Your task to perform on an android device: add a contact in the contacts app Image 0: 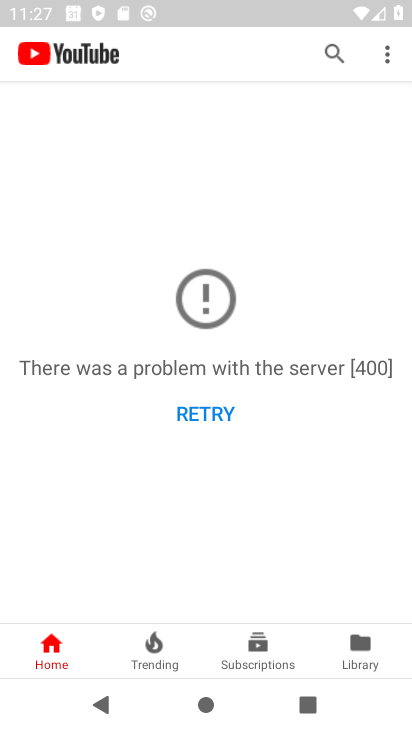
Step 0: press home button
Your task to perform on an android device: add a contact in the contacts app Image 1: 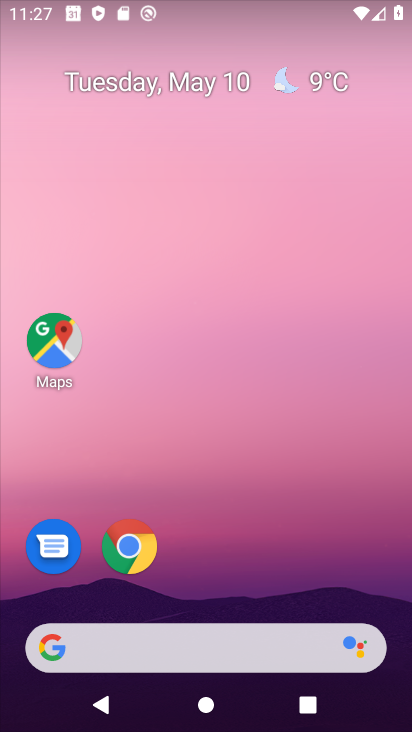
Step 1: drag from (201, 586) to (206, 129)
Your task to perform on an android device: add a contact in the contacts app Image 2: 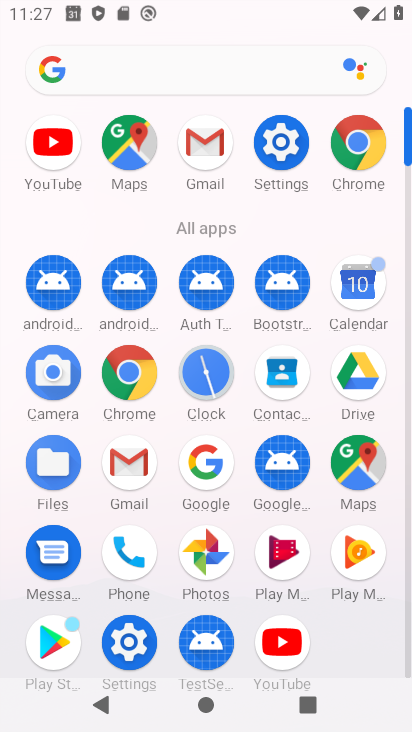
Step 2: click (284, 390)
Your task to perform on an android device: add a contact in the contacts app Image 3: 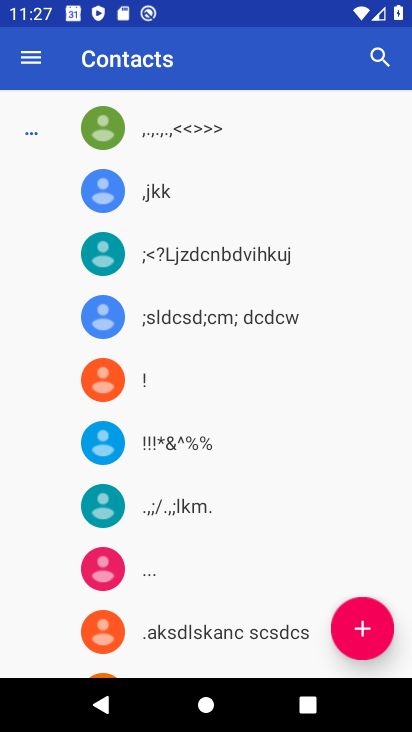
Step 3: click (376, 634)
Your task to perform on an android device: add a contact in the contacts app Image 4: 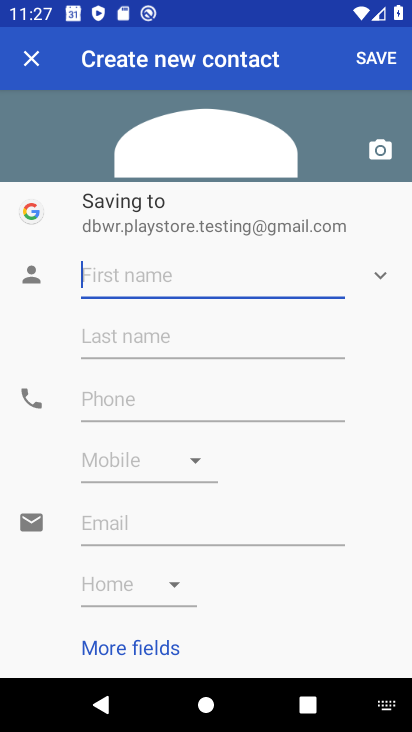
Step 4: type "xcbxcvn"
Your task to perform on an android device: add a contact in the contacts app Image 5: 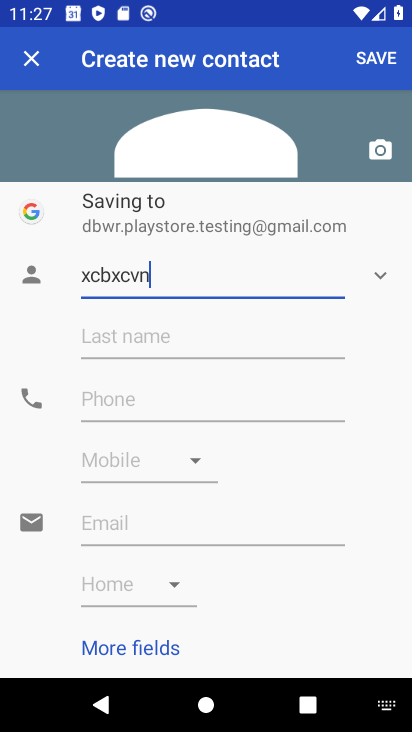
Step 5: click (218, 395)
Your task to perform on an android device: add a contact in the contacts app Image 6: 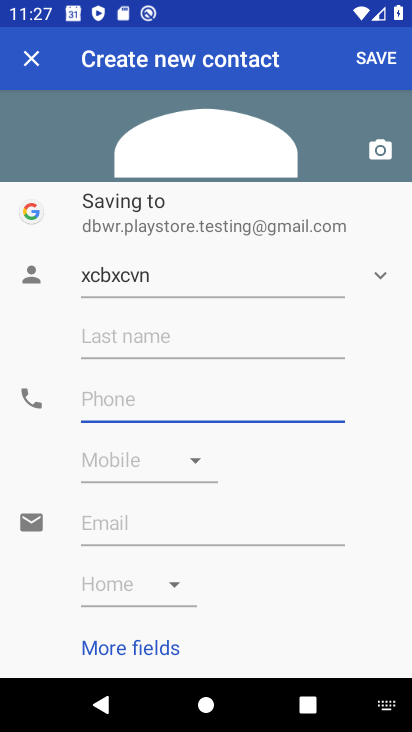
Step 6: type "7976986568"
Your task to perform on an android device: add a contact in the contacts app Image 7: 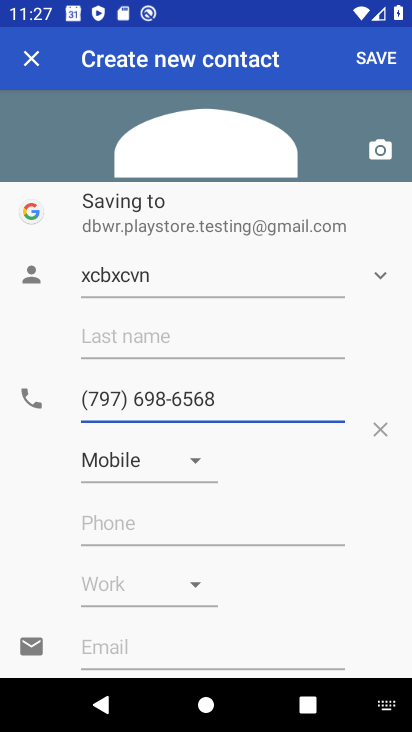
Step 7: click (375, 71)
Your task to perform on an android device: add a contact in the contacts app Image 8: 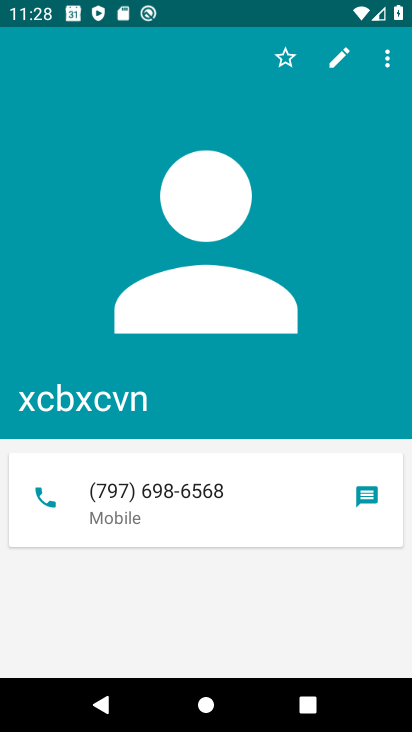
Step 8: task complete